Your task to perform on an android device: What's the US dollar exchange rate against the Canadian Dollar? Image 0: 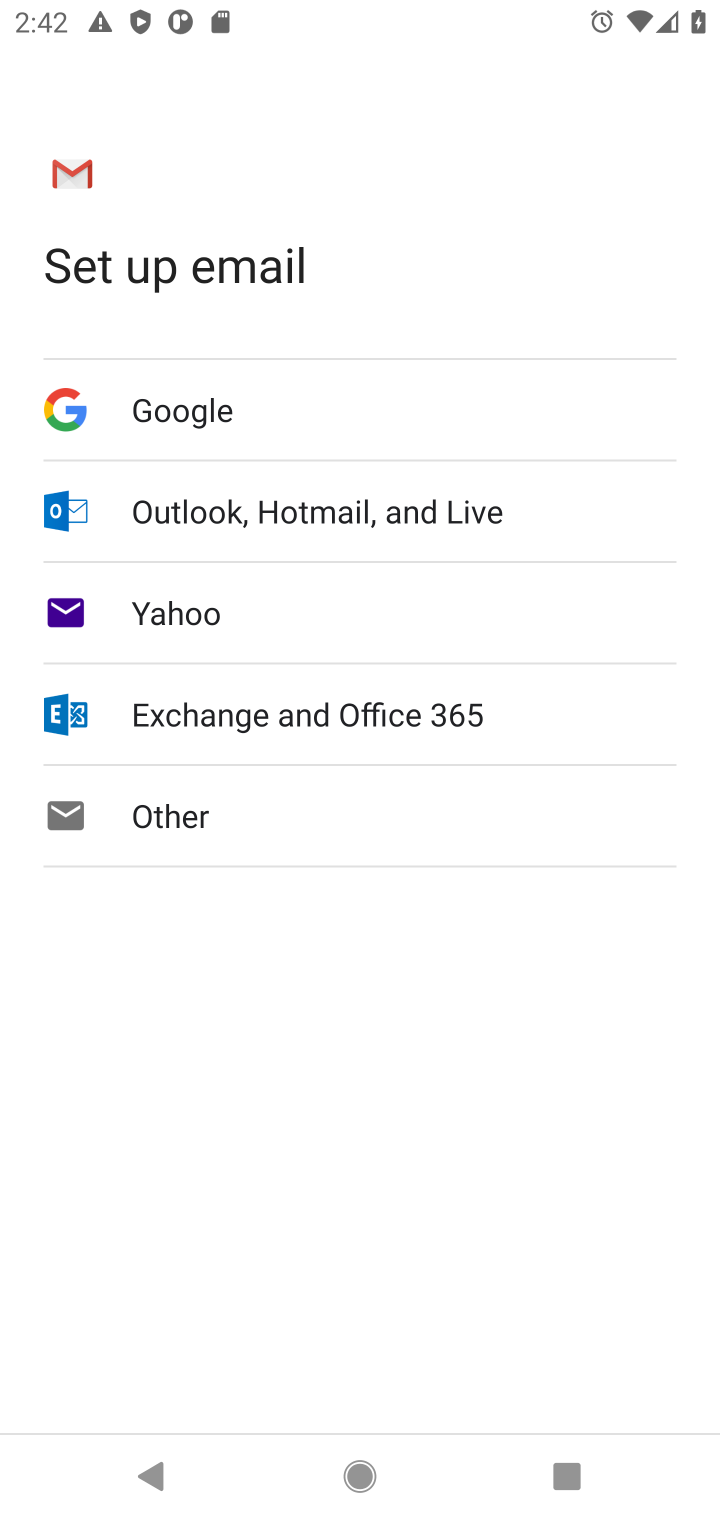
Step 0: press home button
Your task to perform on an android device: What's the US dollar exchange rate against the Canadian Dollar? Image 1: 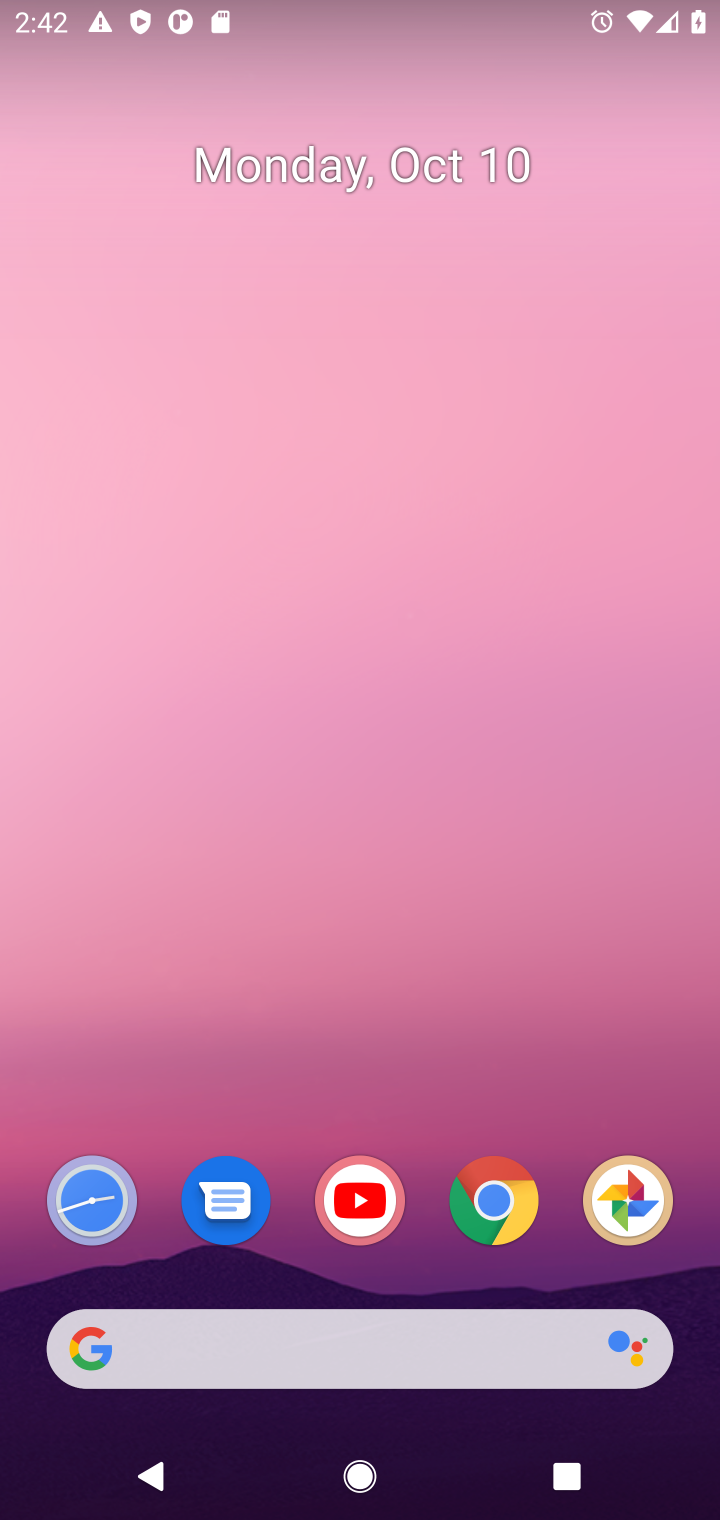
Step 1: click (516, 1194)
Your task to perform on an android device: What's the US dollar exchange rate against the Canadian Dollar? Image 2: 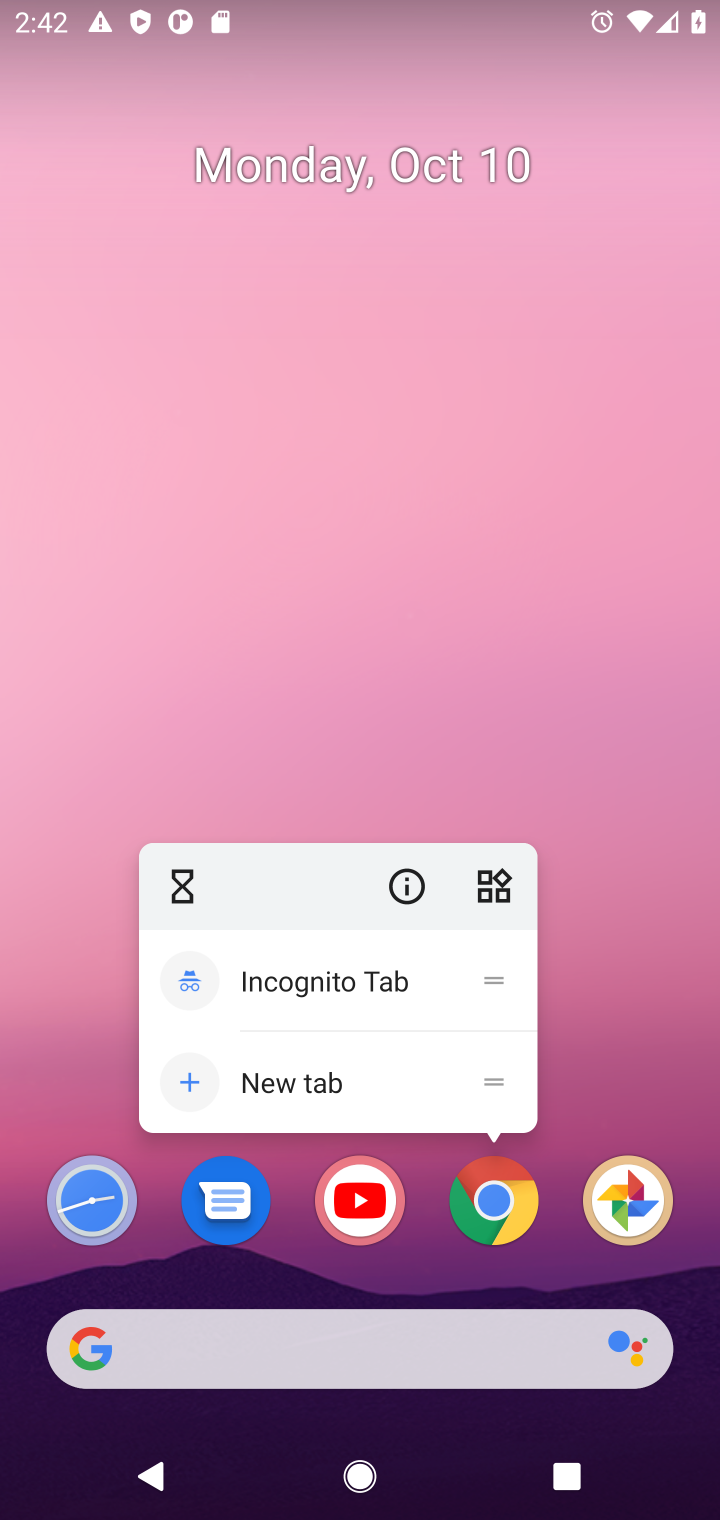
Step 2: click (593, 1032)
Your task to perform on an android device: What's the US dollar exchange rate against the Canadian Dollar? Image 3: 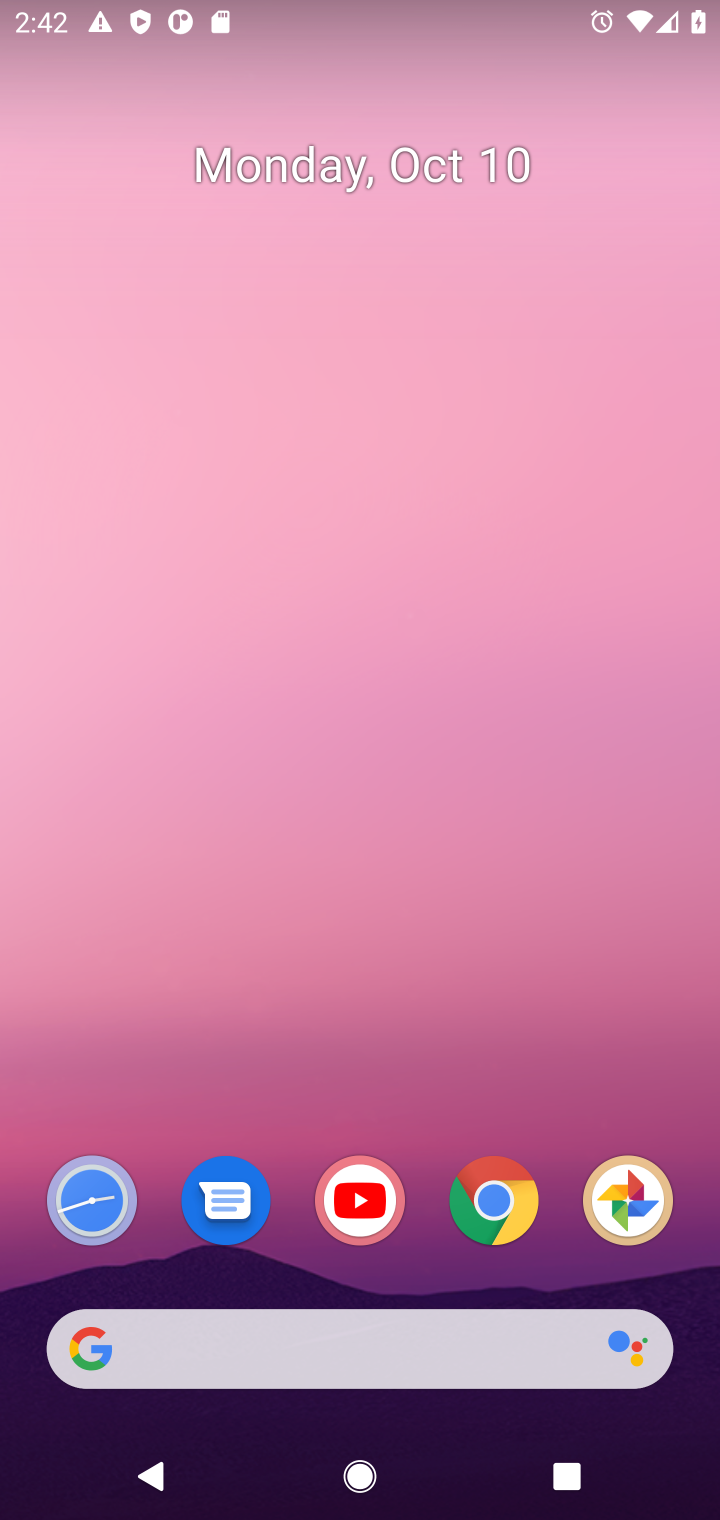
Step 3: click (498, 1193)
Your task to perform on an android device: What's the US dollar exchange rate against the Canadian Dollar? Image 4: 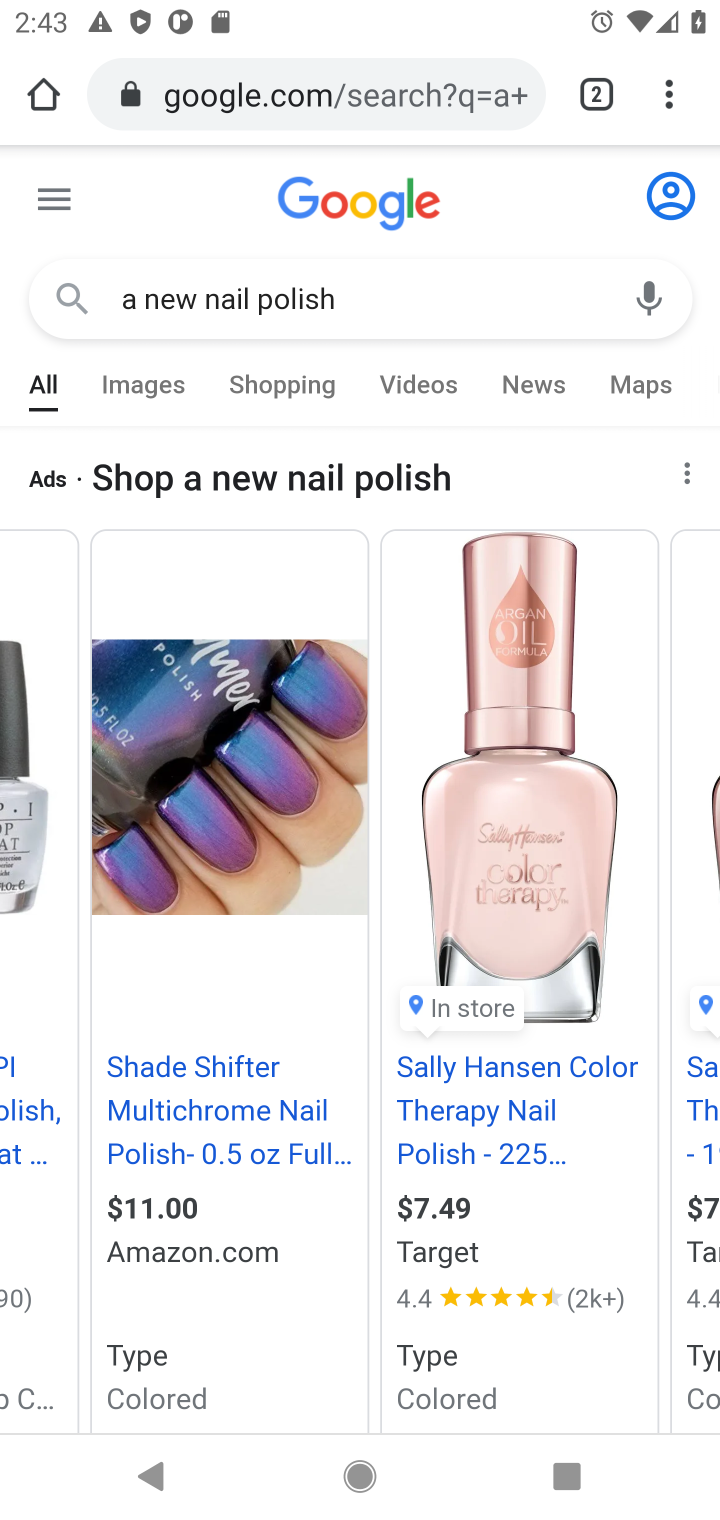
Step 4: click (432, 90)
Your task to perform on an android device: What's the US dollar exchange rate against the Canadian Dollar? Image 5: 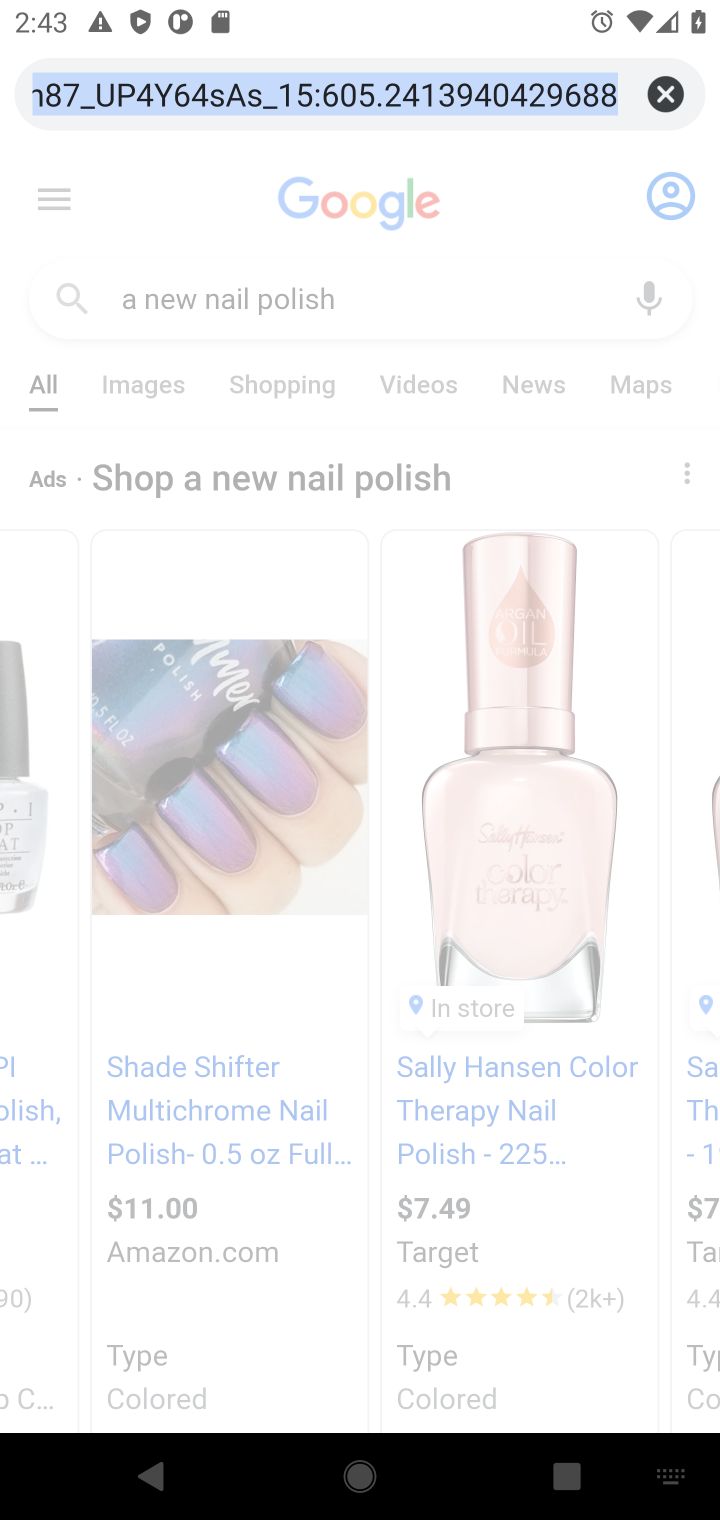
Step 5: type "US dollar exchange rate against the Canadian Dollar"
Your task to perform on an android device: What's the US dollar exchange rate against the Canadian Dollar? Image 6: 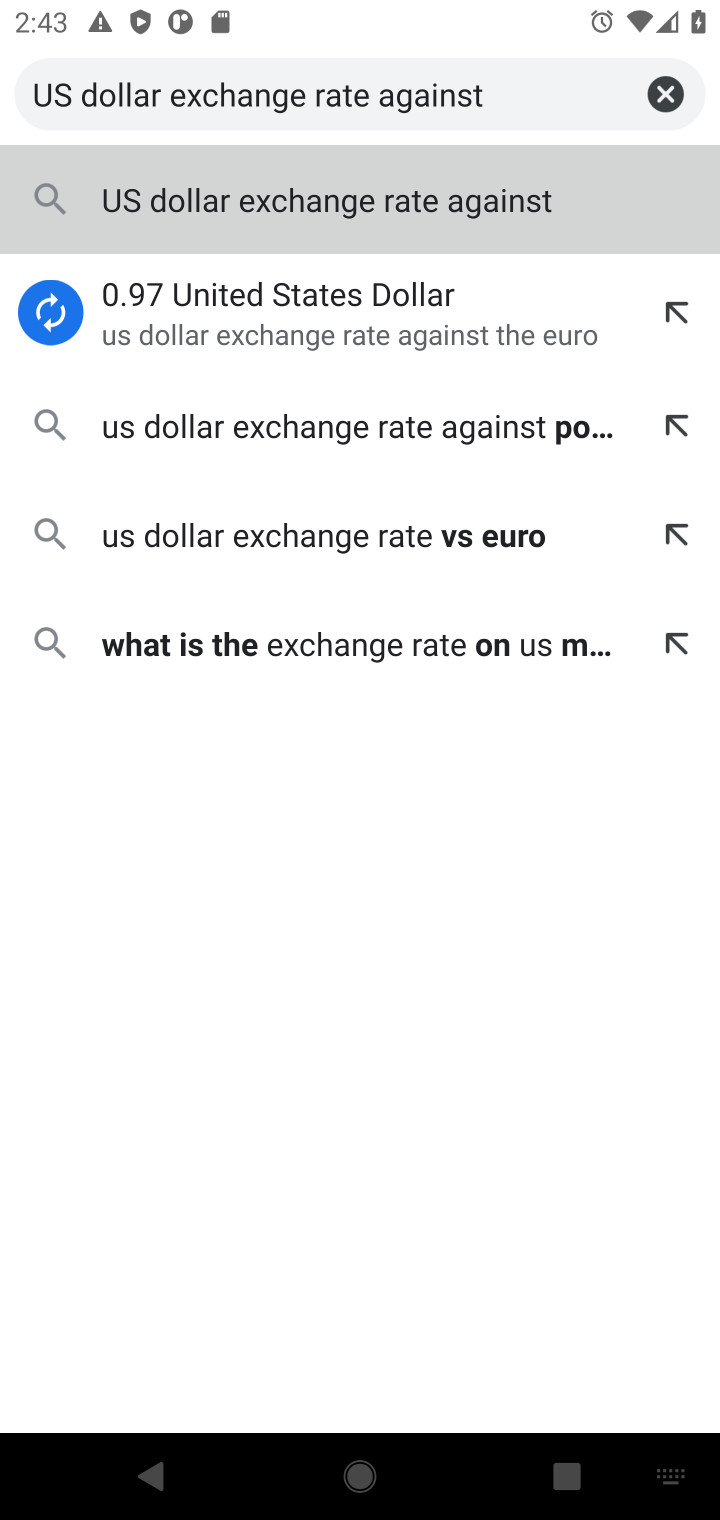
Step 6: click (512, 191)
Your task to perform on an android device: What's the US dollar exchange rate against the Canadian Dollar? Image 7: 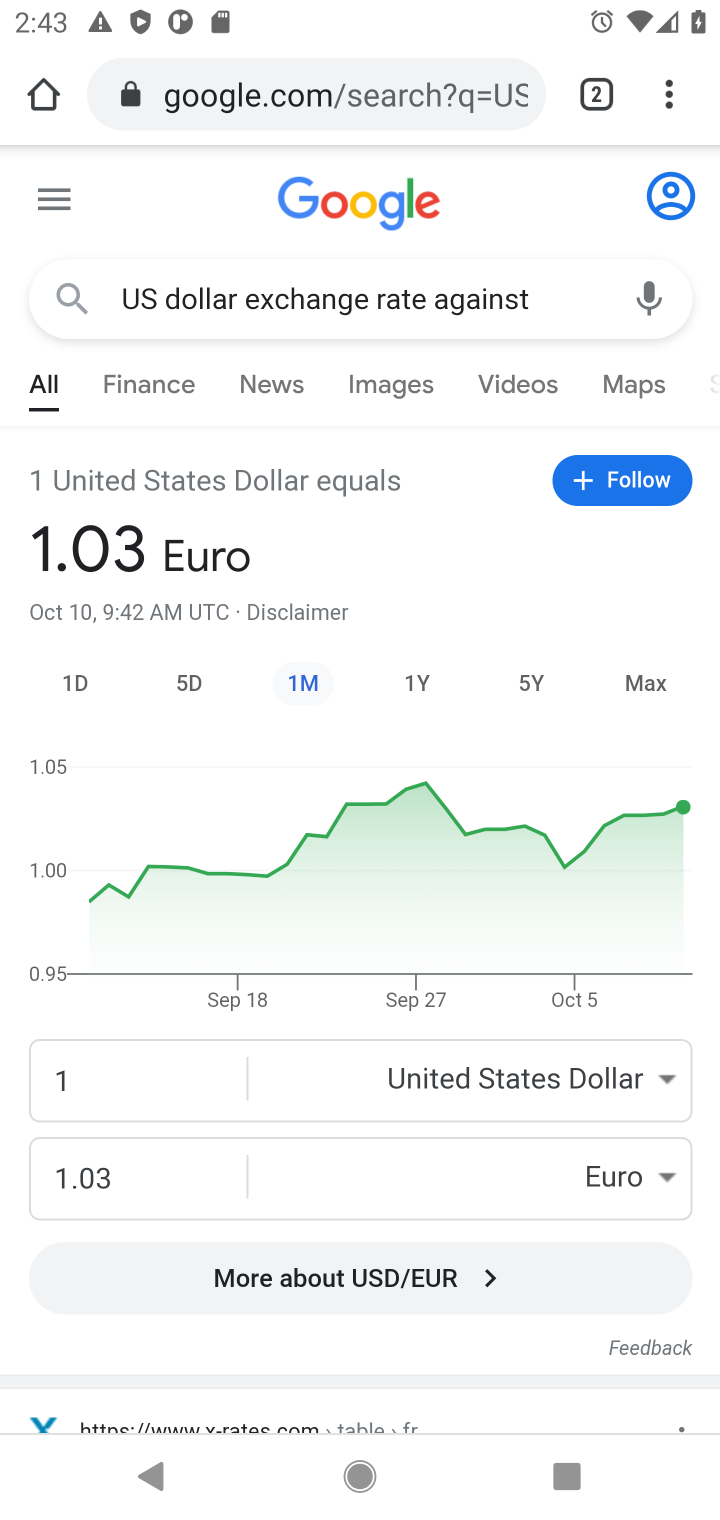
Step 7: task complete